Your task to perform on an android device: View the shopping cart on walmart.com. Image 0: 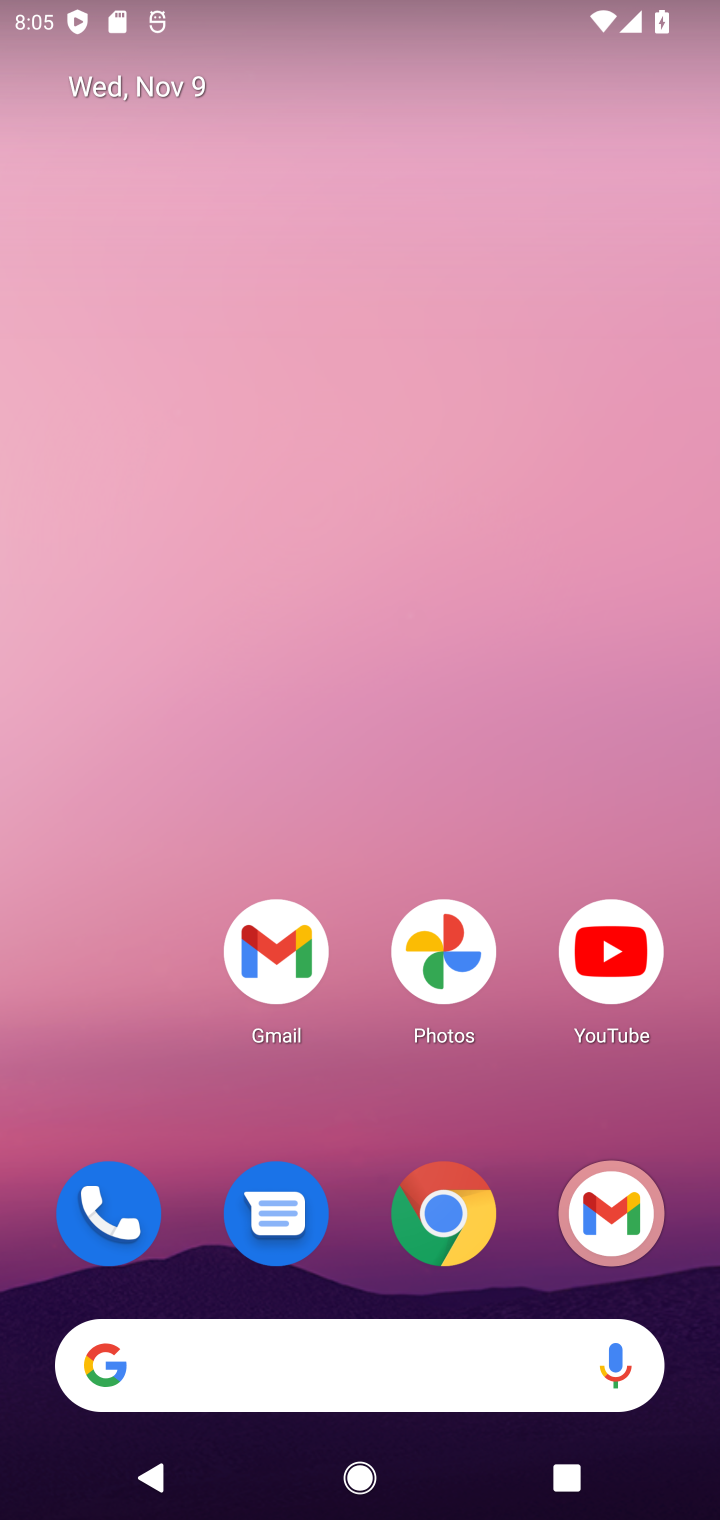
Step 0: click (484, 1221)
Your task to perform on an android device: View the shopping cart on walmart.com. Image 1: 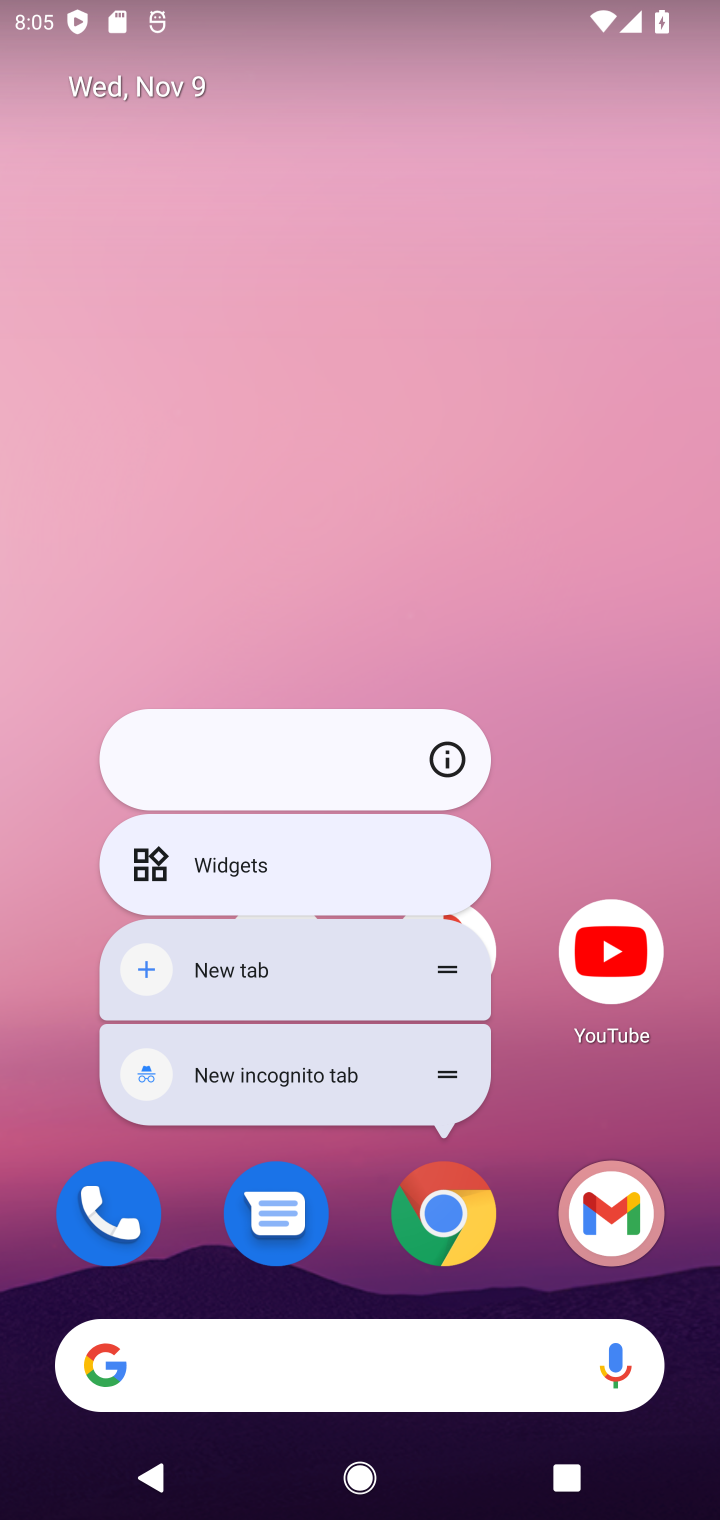
Step 1: click (447, 1225)
Your task to perform on an android device: View the shopping cart on walmart.com. Image 2: 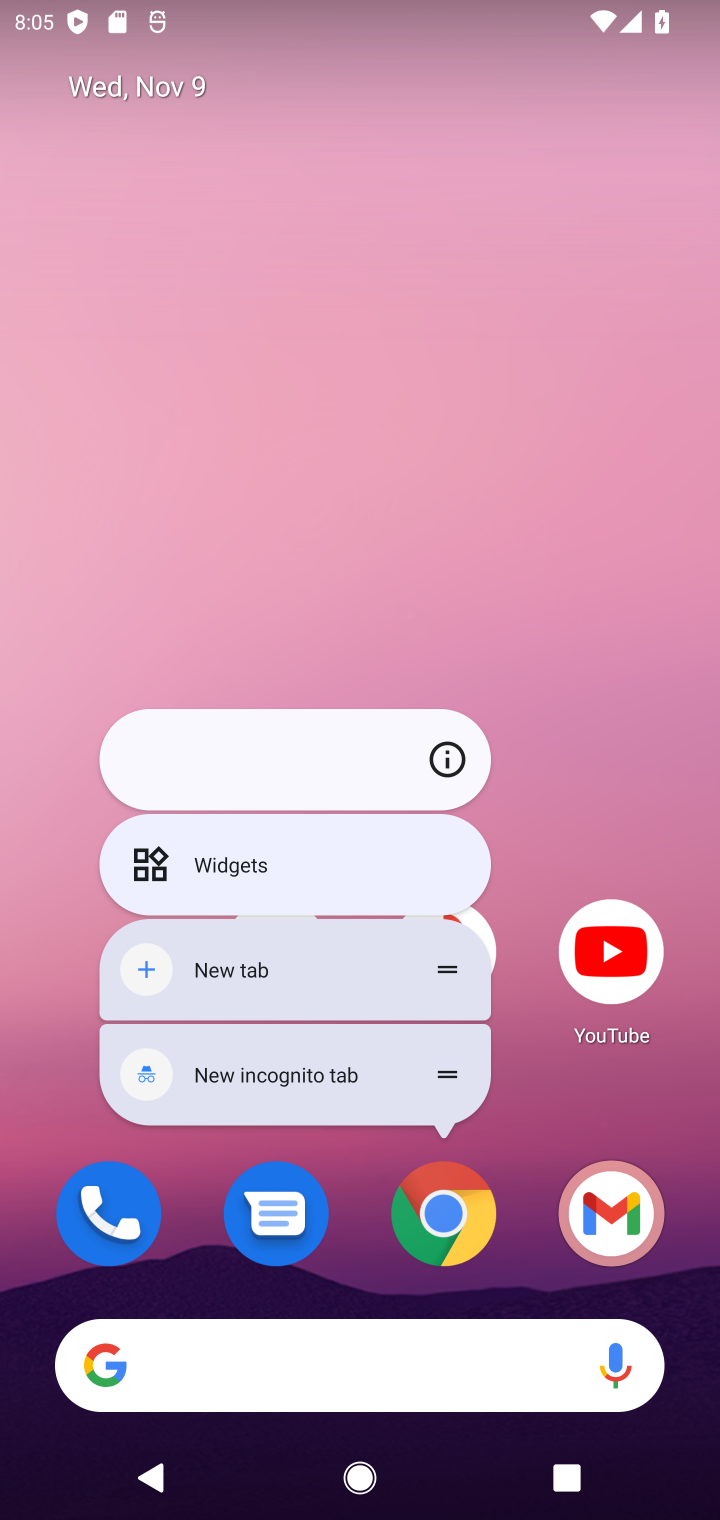
Step 2: click (451, 1220)
Your task to perform on an android device: View the shopping cart on walmart.com. Image 3: 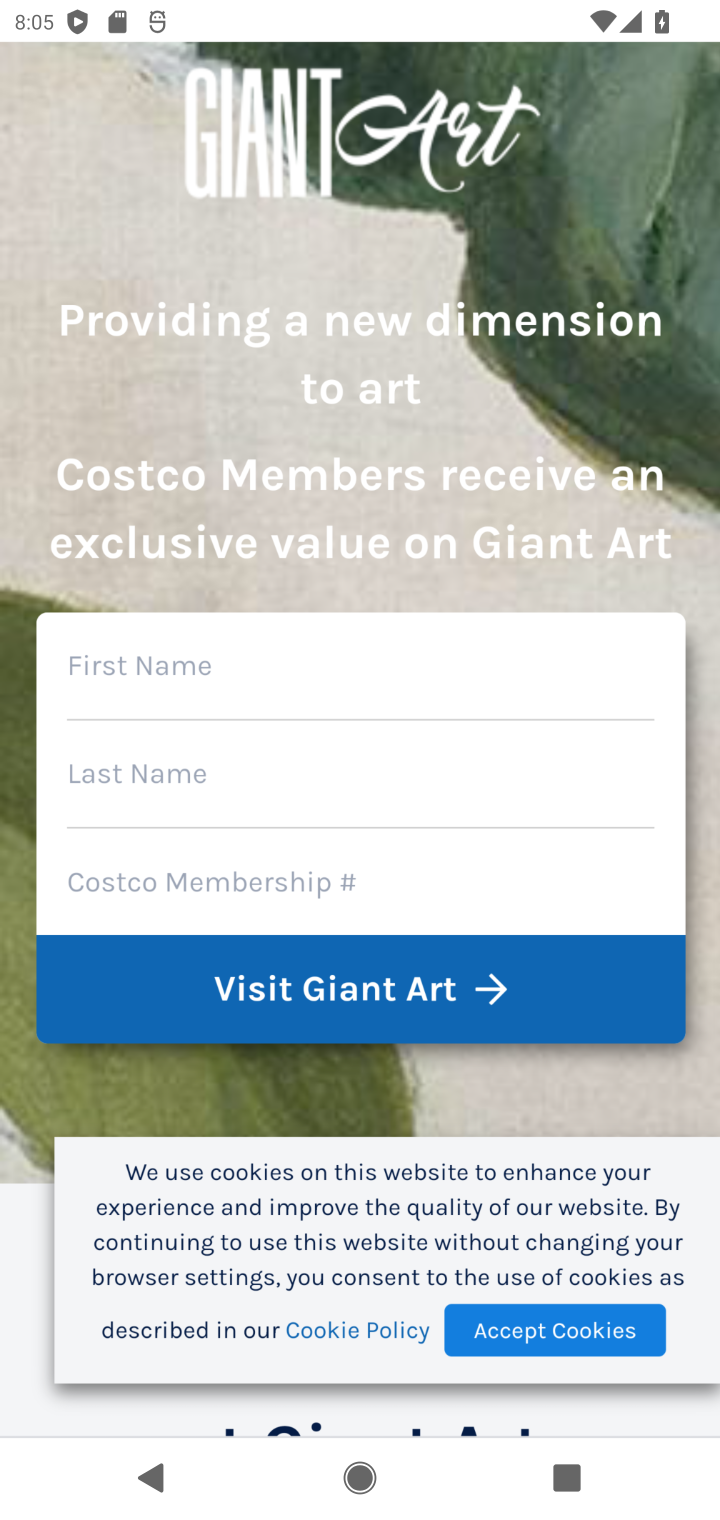
Step 3: click (451, 1214)
Your task to perform on an android device: View the shopping cart on walmart.com. Image 4: 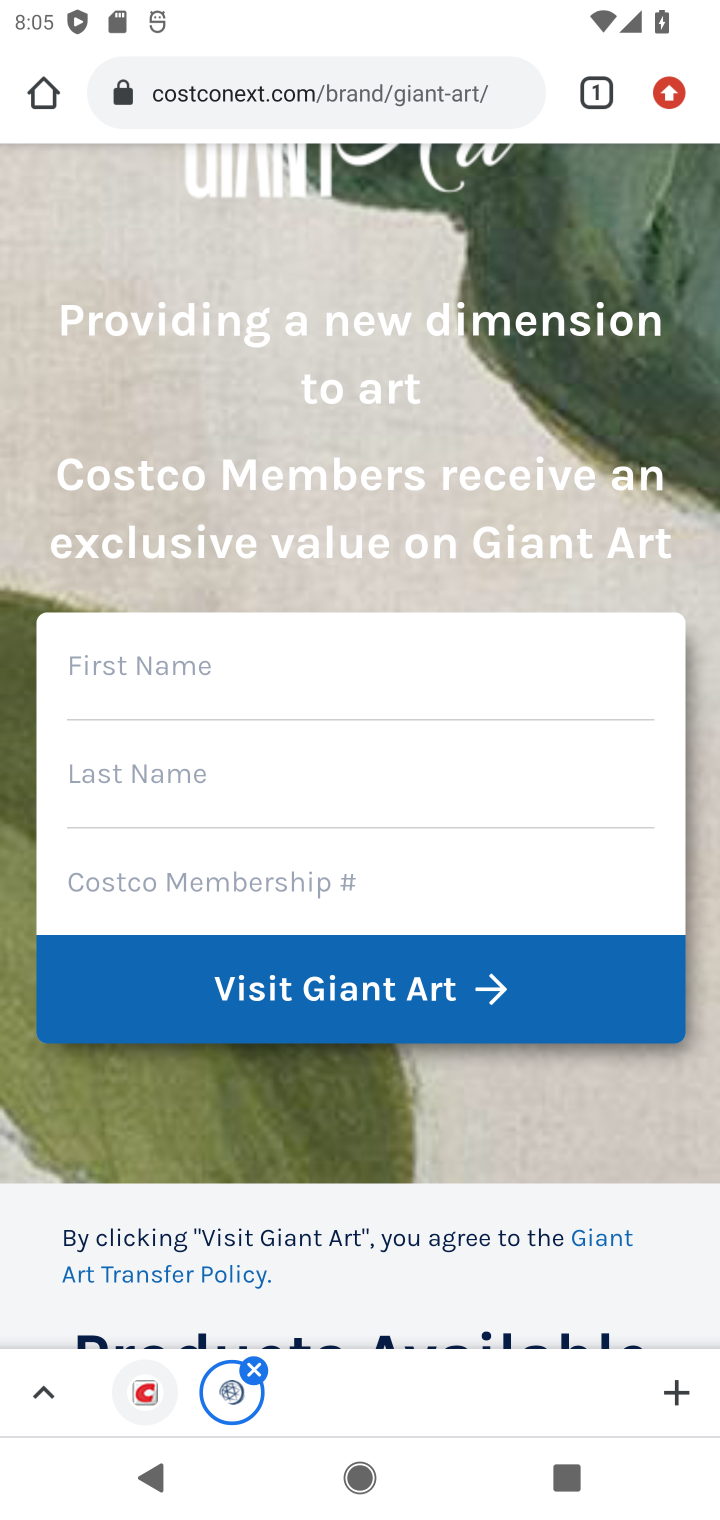
Step 4: click (188, 96)
Your task to perform on an android device: View the shopping cart on walmart.com. Image 5: 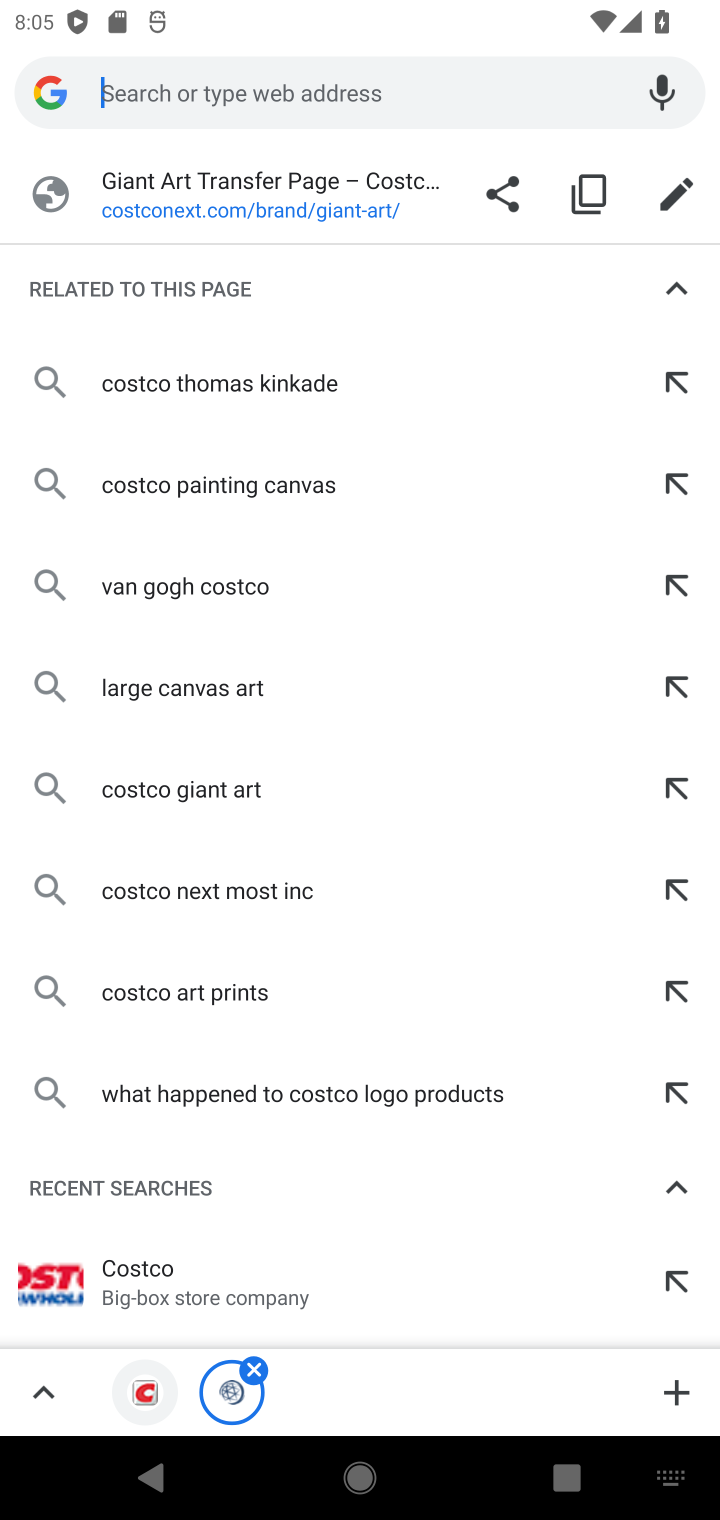
Step 5: type "walmart"
Your task to perform on an android device: View the shopping cart on walmart.com. Image 6: 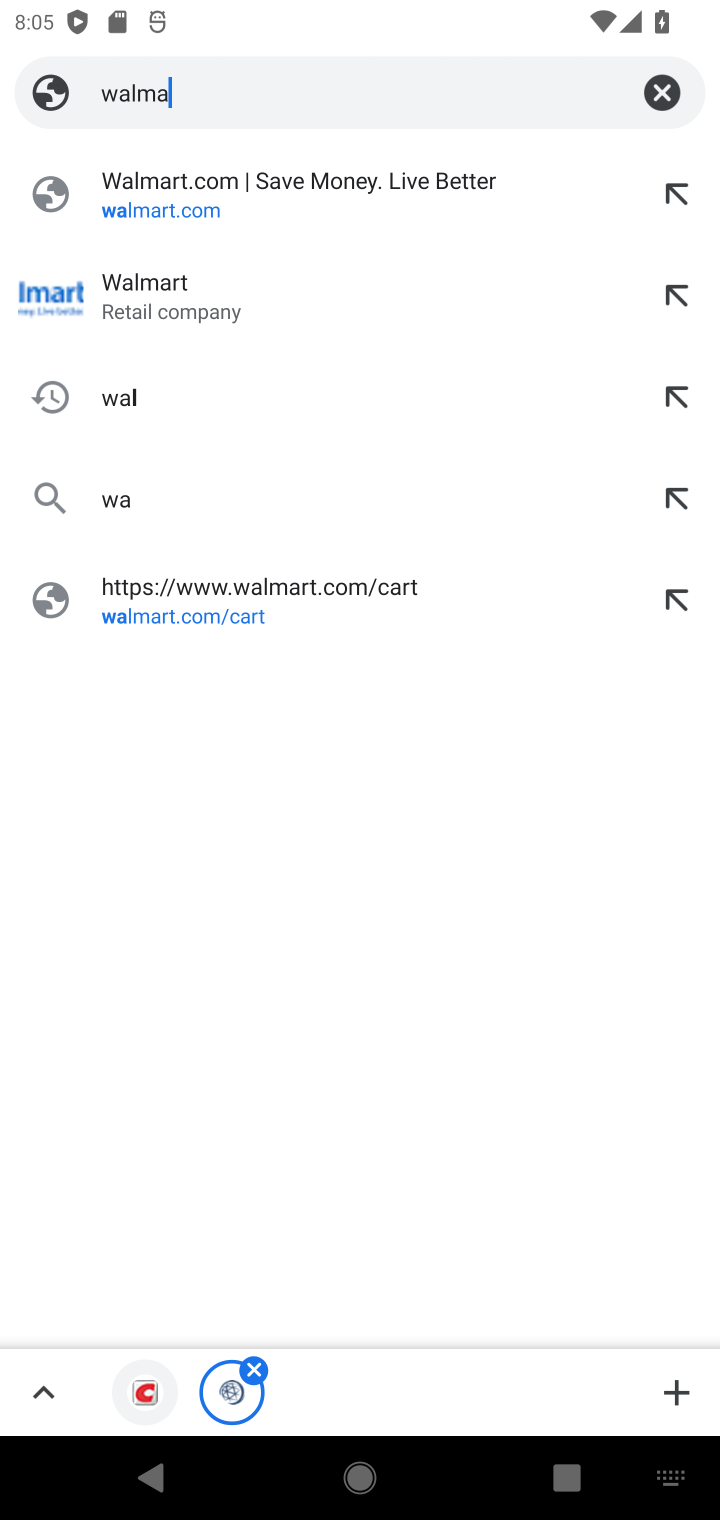
Step 6: type ""
Your task to perform on an android device: View the shopping cart on walmart.com. Image 7: 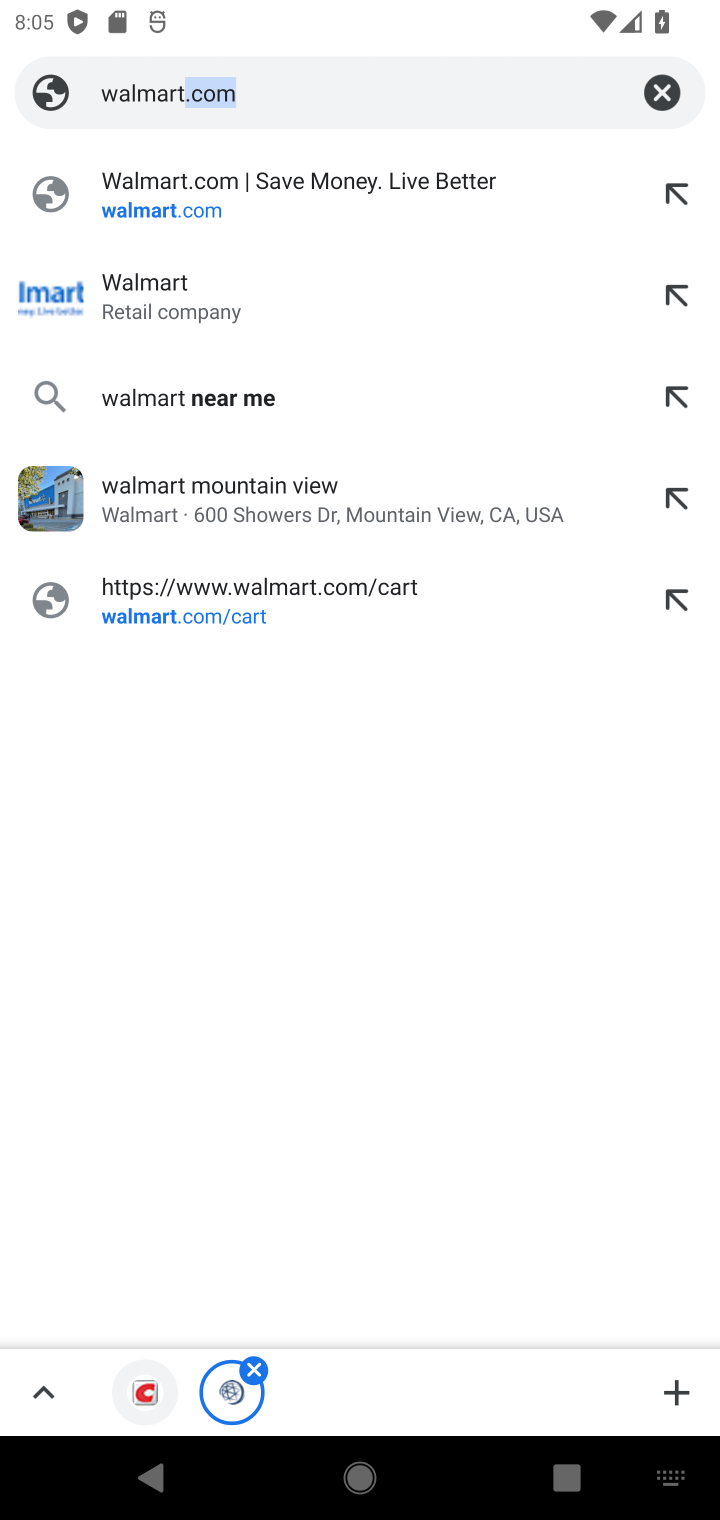
Step 7: click (98, 306)
Your task to perform on an android device: View the shopping cart on walmart.com. Image 8: 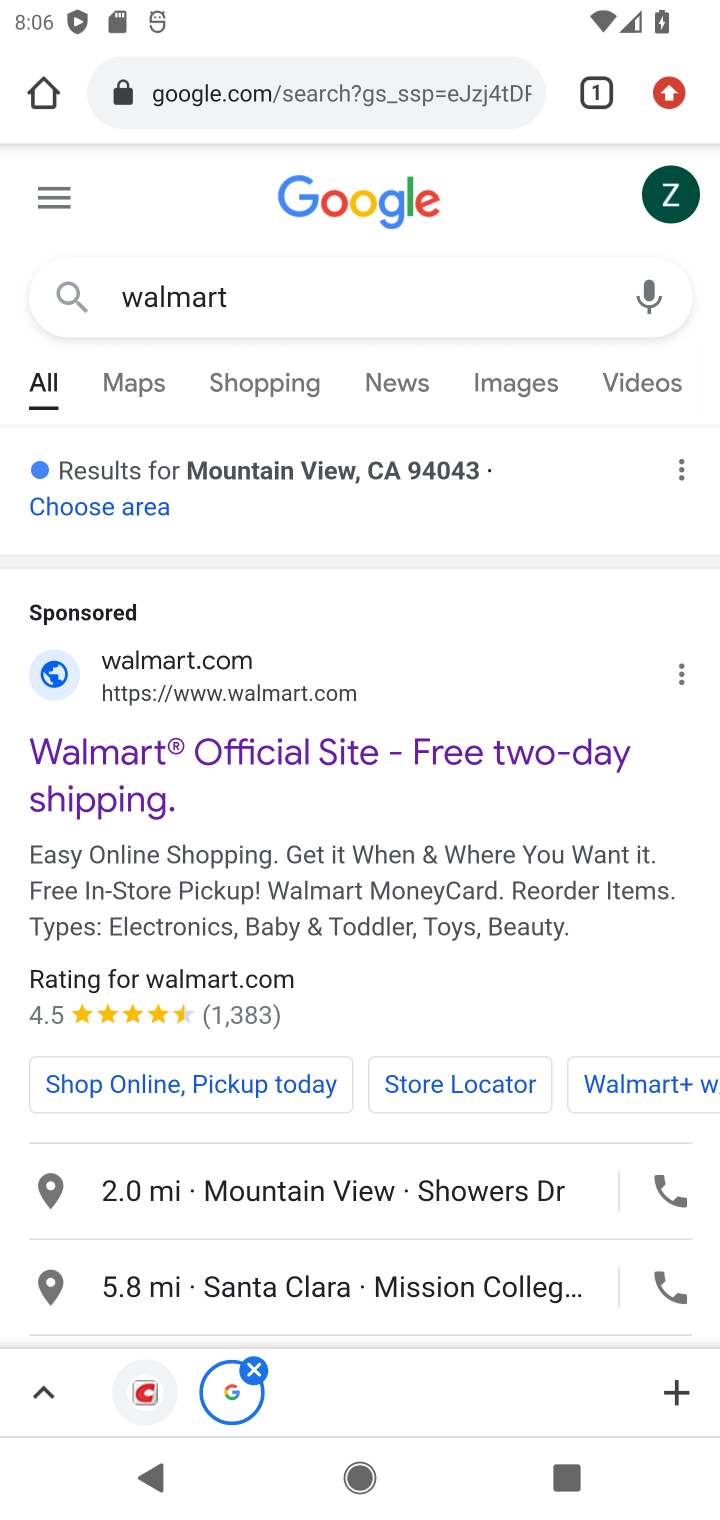
Step 8: drag from (178, 976) to (185, 413)
Your task to perform on an android device: View the shopping cart on walmart.com. Image 9: 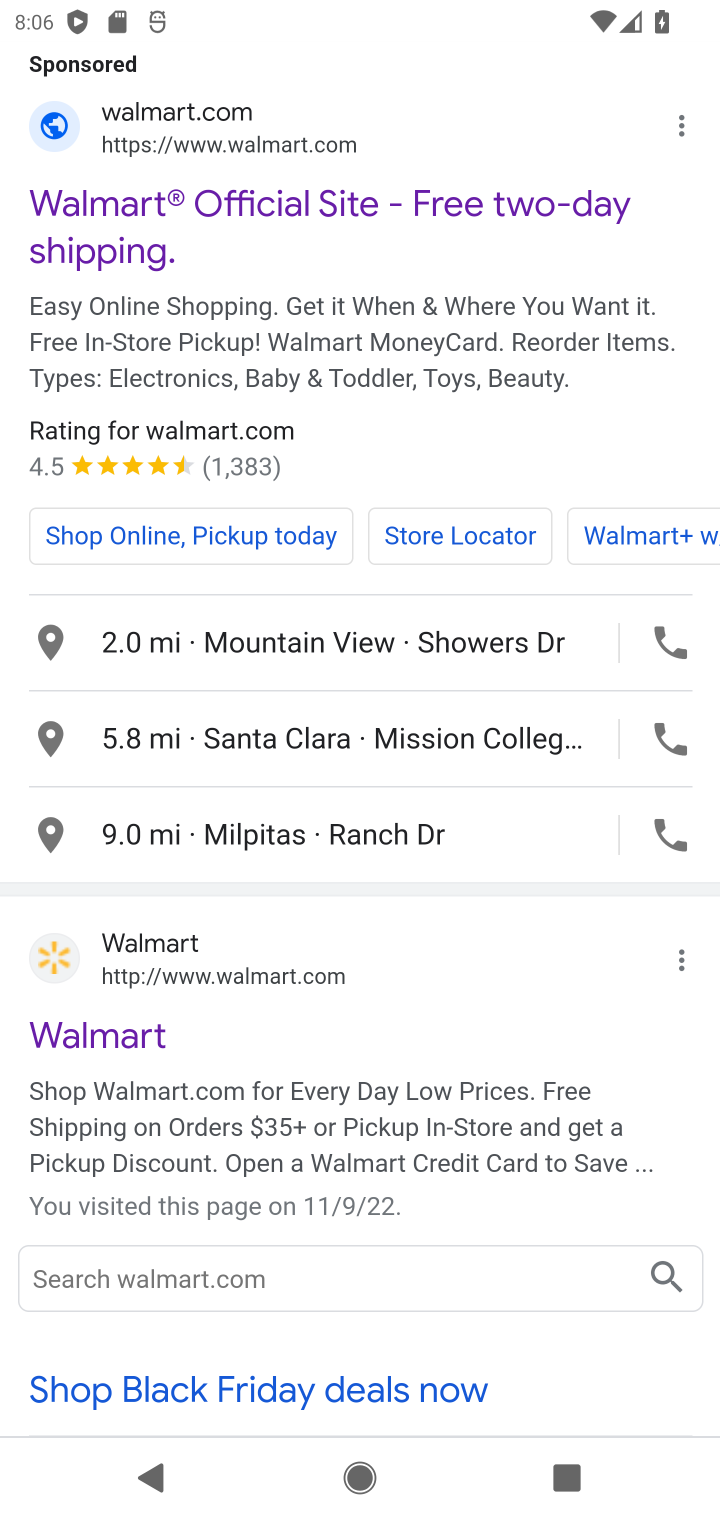
Step 9: click (74, 1029)
Your task to perform on an android device: View the shopping cart on walmart.com. Image 10: 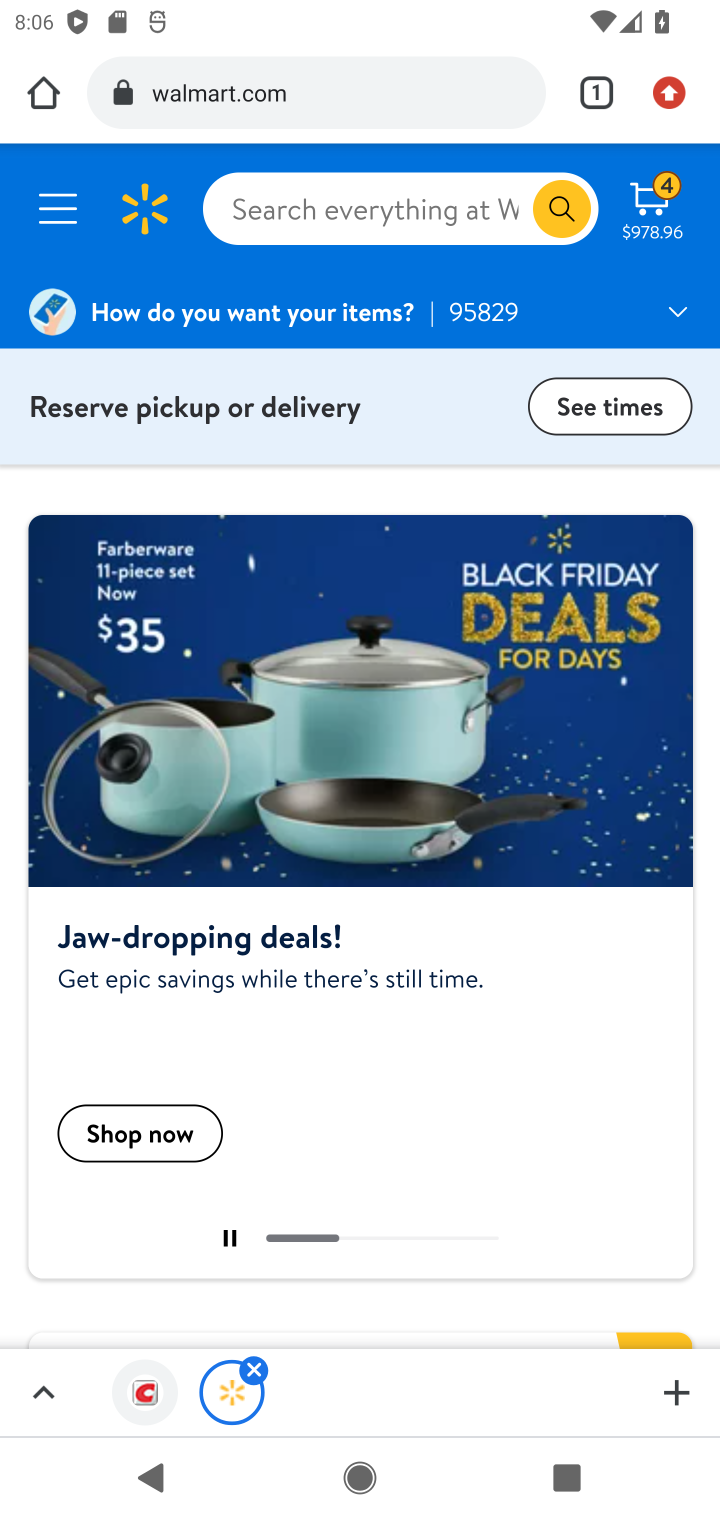
Step 10: click (400, 193)
Your task to perform on an android device: View the shopping cart on walmart.com. Image 11: 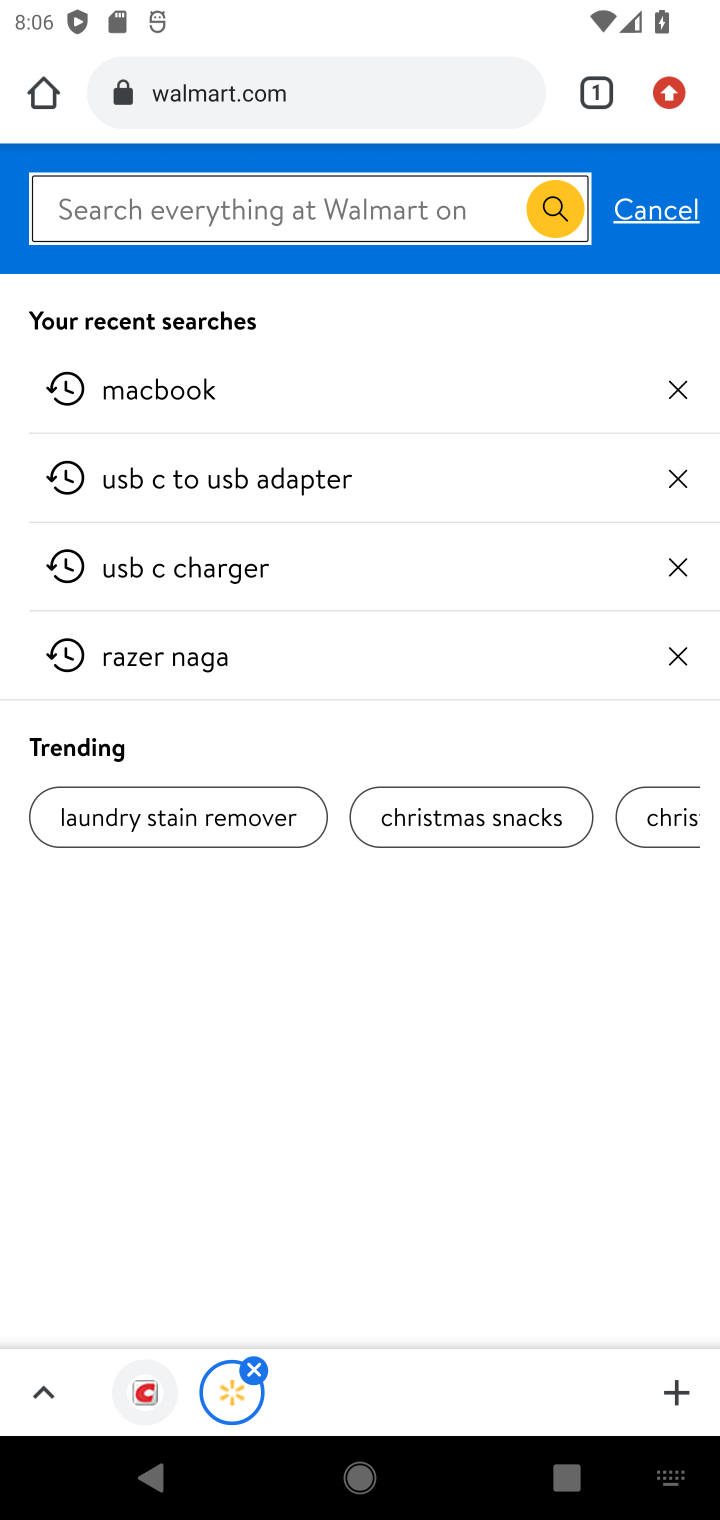
Step 11: press back button
Your task to perform on an android device: View the shopping cart on walmart.com. Image 12: 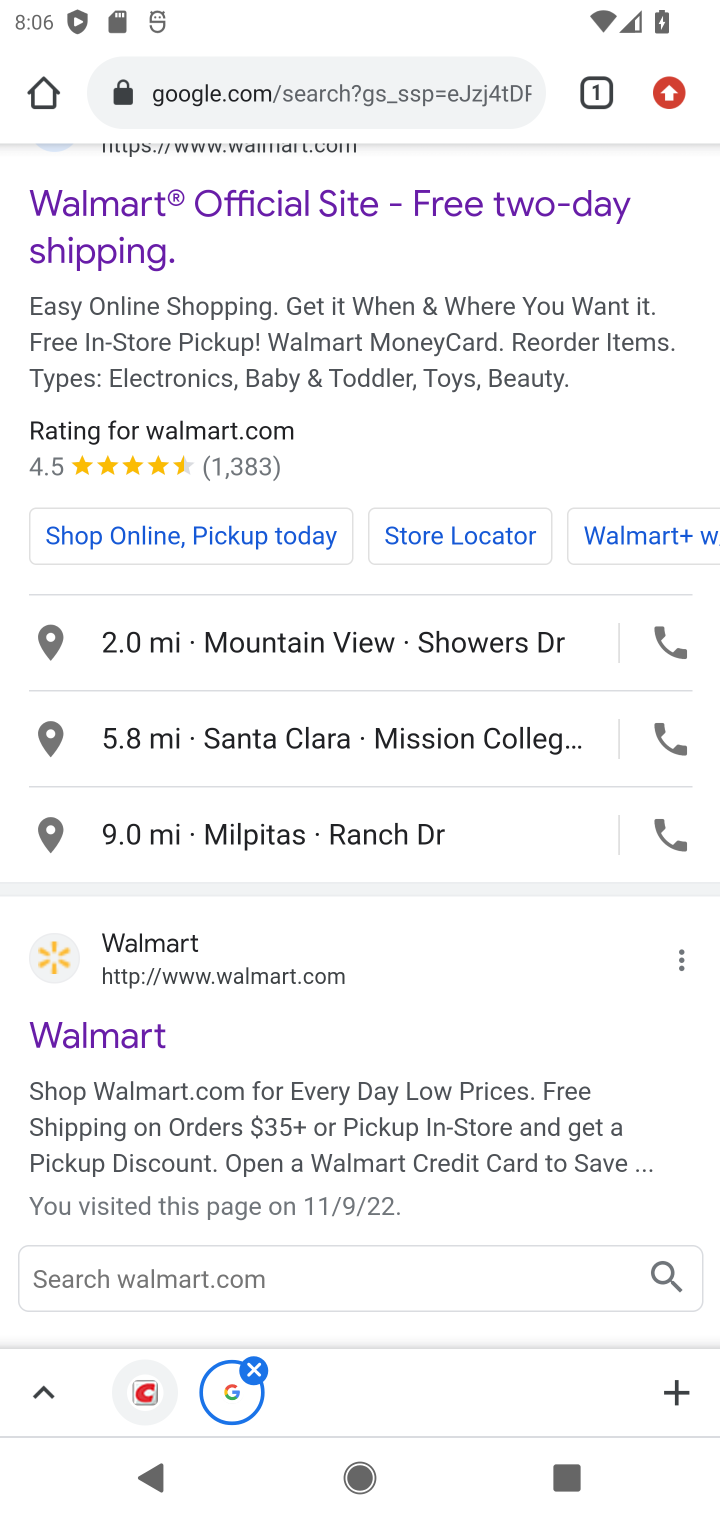
Step 12: click (114, 1048)
Your task to perform on an android device: View the shopping cart on walmart.com. Image 13: 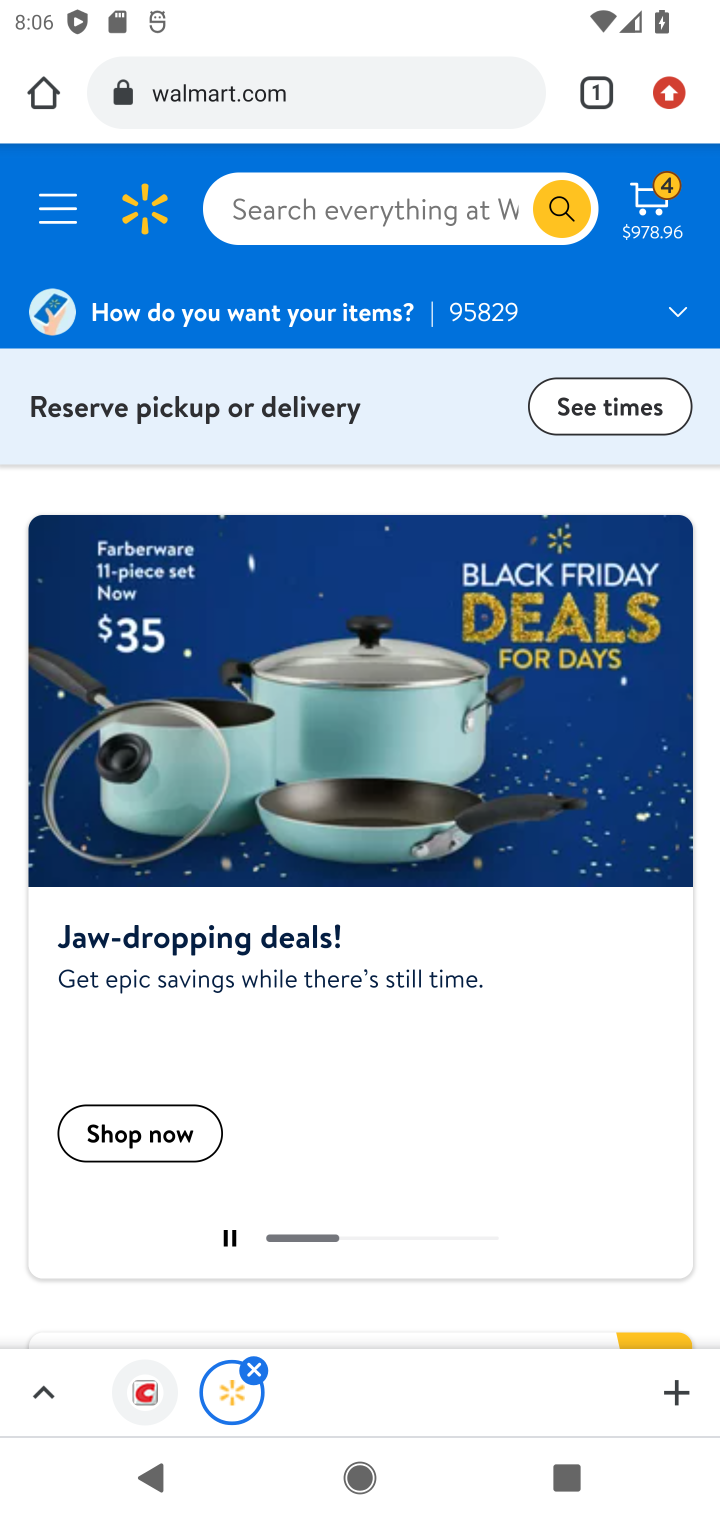
Step 13: click (663, 209)
Your task to perform on an android device: View the shopping cart on walmart.com. Image 14: 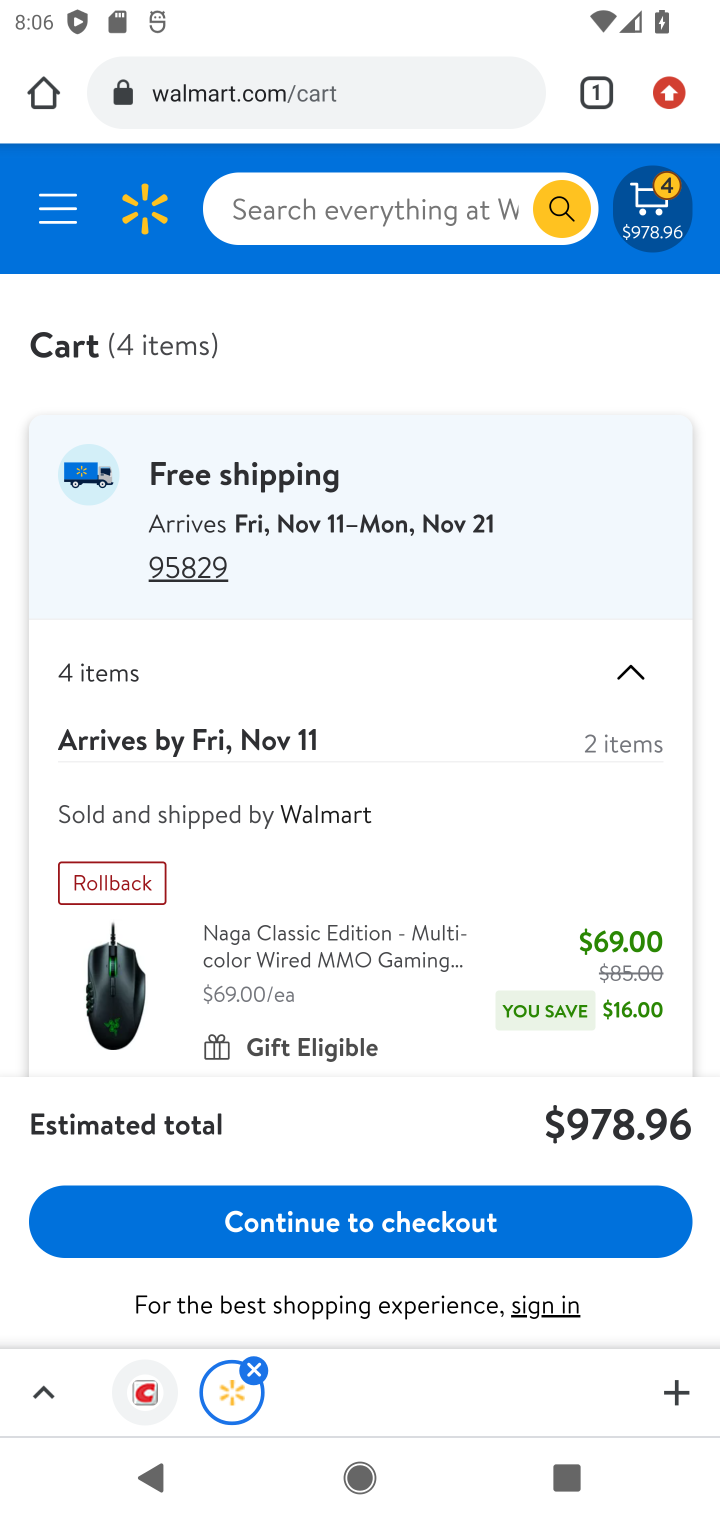
Step 14: task complete